Your task to perform on an android device: uninstall "Mercado Libre" Image 0: 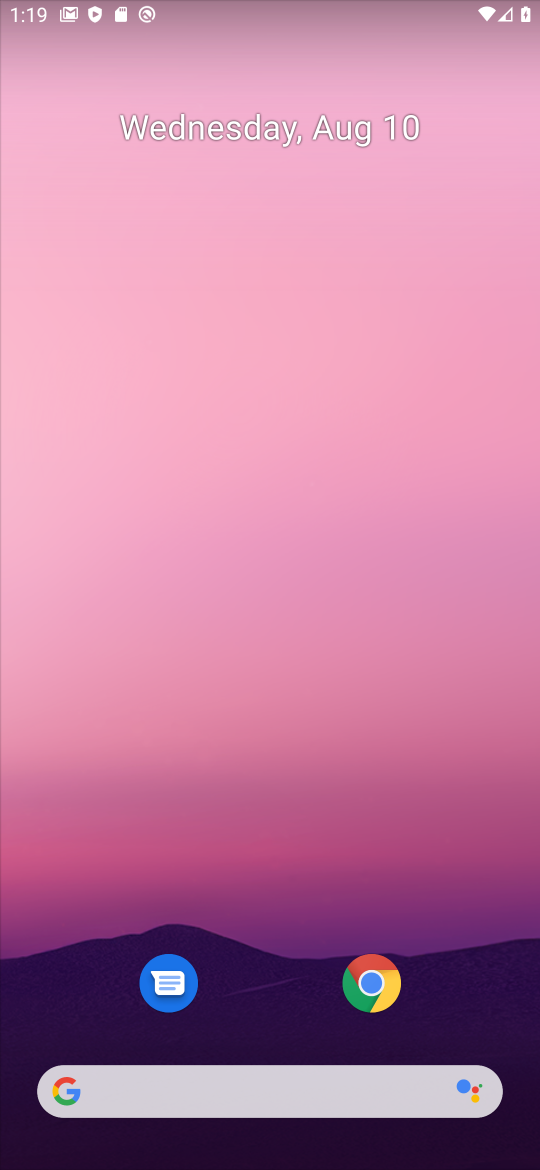
Step 0: drag from (455, 947) to (296, 83)
Your task to perform on an android device: uninstall "Mercado Libre" Image 1: 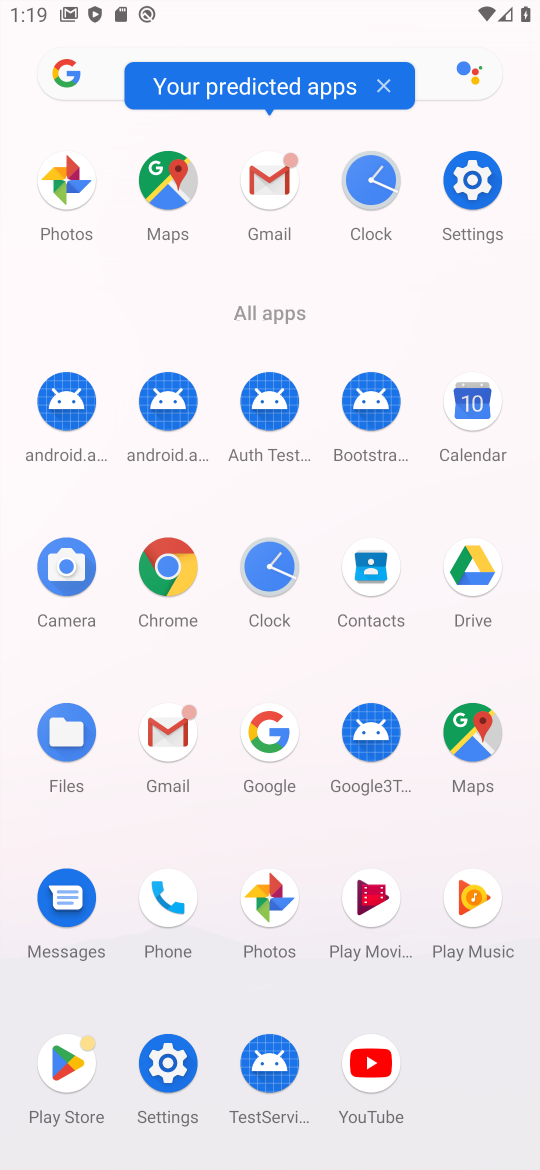
Step 1: click (71, 1050)
Your task to perform on an android device: uninstall "Mercado Libre" Image 2: 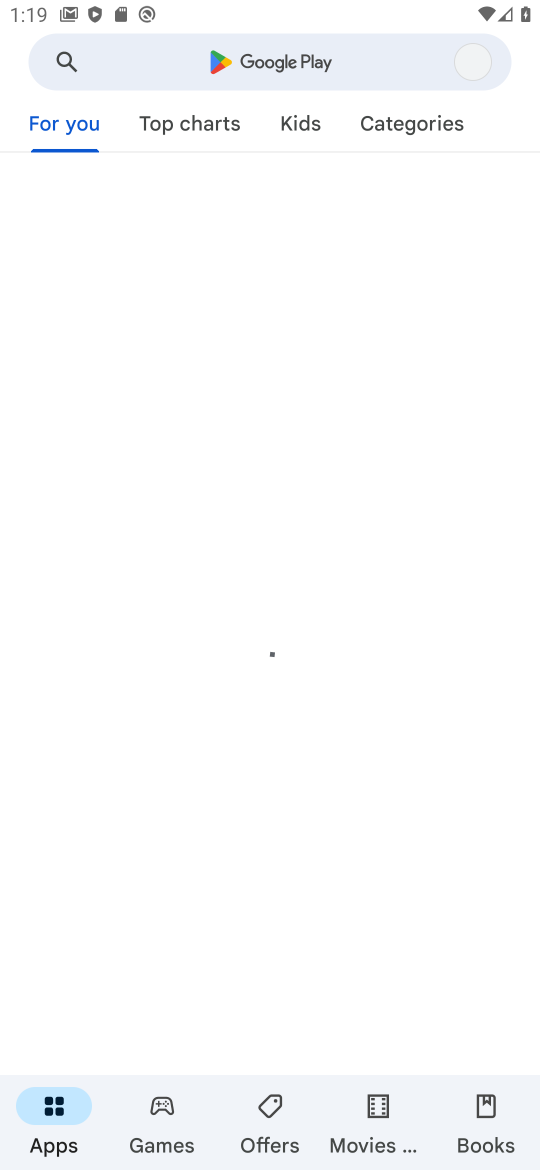
Step 2: click (311, 60)
Your task to perform on an android device: uninstall "Mercado Libre" Image 3: 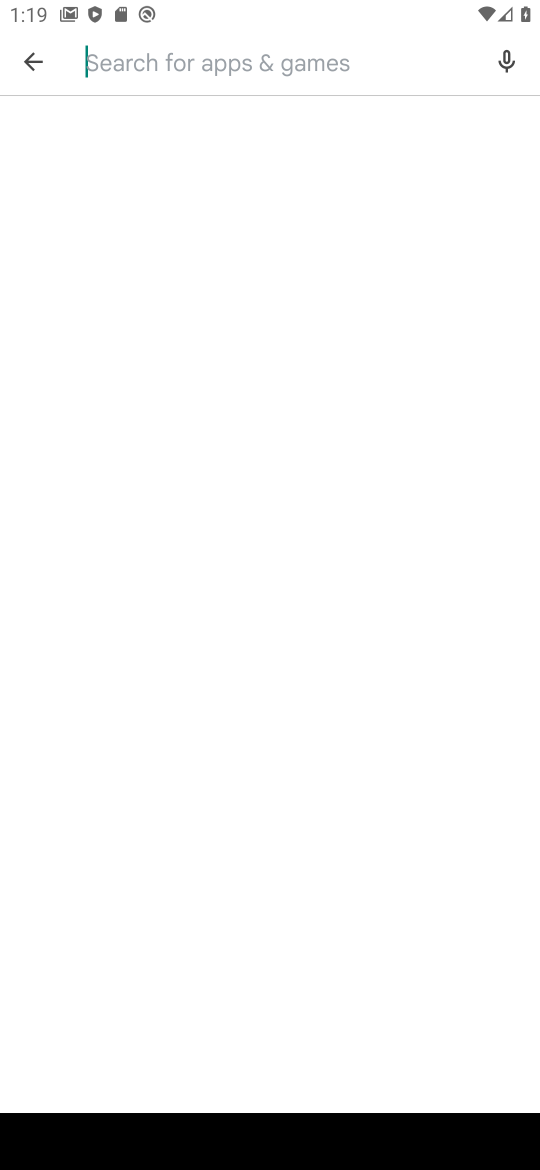
Step 3: type "mercado libre"
Your task to perform on an android device: uninstall "Mercado Libre" Image 4: 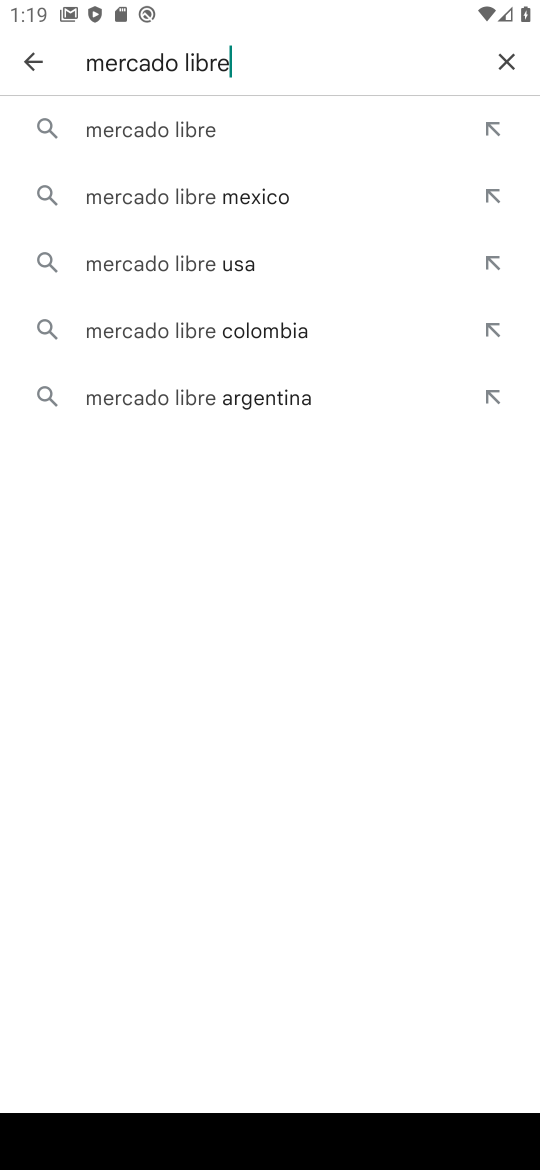
Step 4: click (293, 120)
Your task to perform on an android device: uninstall "Mercado Libre" Image 5: 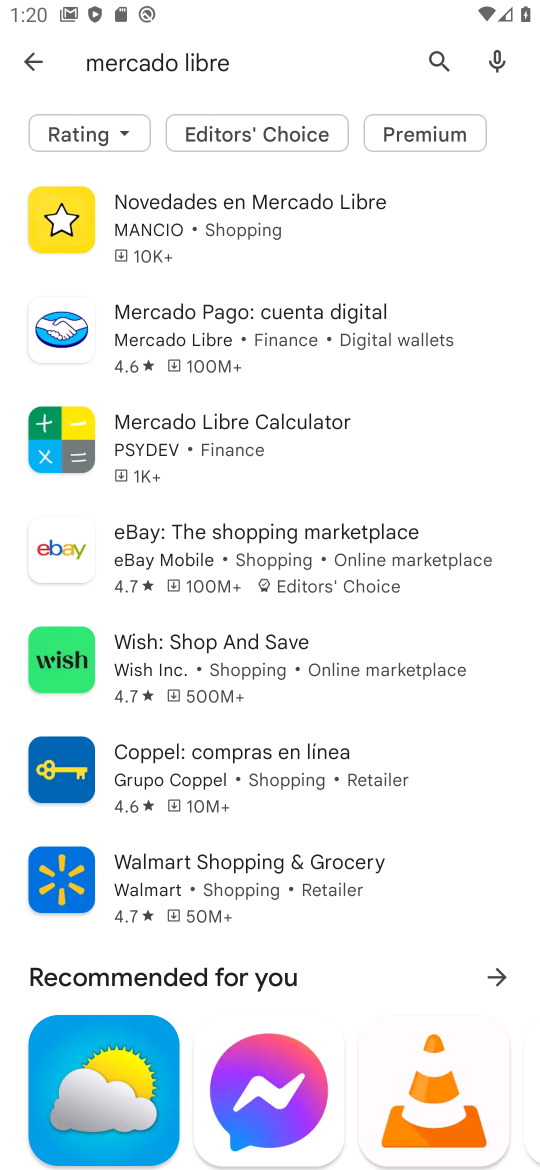
Step 5: click (256, 199)
Your task to perform on an android device: uninstall "Mercado Libre" Image 6: 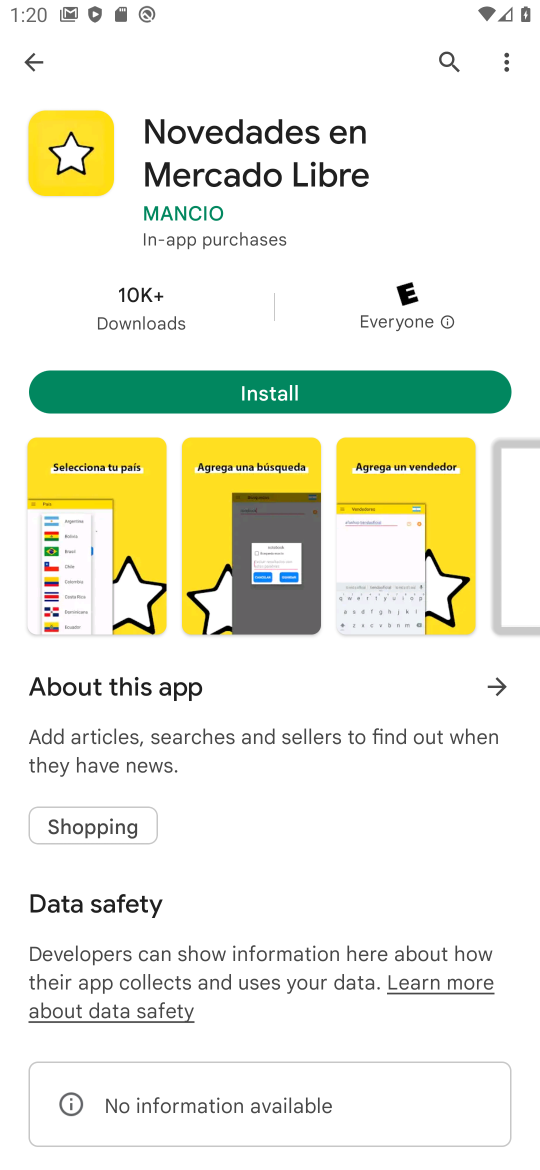
Step 6: task complete